Your task to perform on an android device: allow notifications from all sites in the chrome app Image 0: 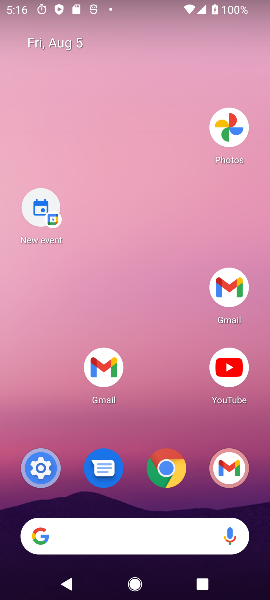
Step 0: drag from (166, 572) to (121, 138)
Your task to perform on an android device: allow notifications from all sites in the chrome app Image 1: 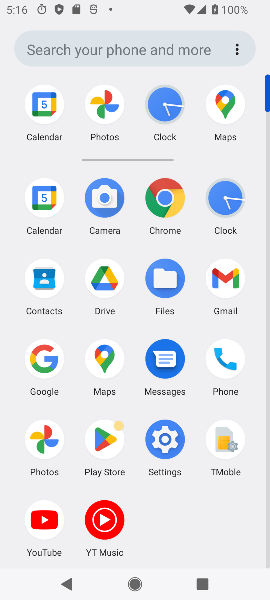
Step 1: drag from (159, 496) to (162, 76)
Your task to perform on an android device: allow notifications from all sites in the chrome app Image 2: 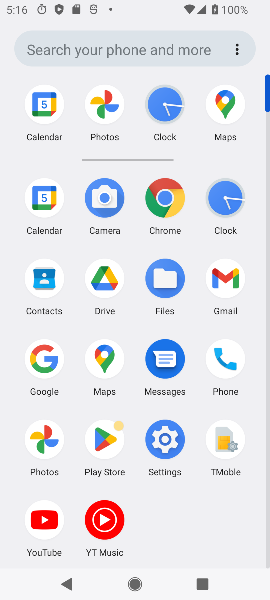
Step 2: click (164, 195)
Your task to perform on an android device: allow notifications from all sites in the chrome app Image 3: 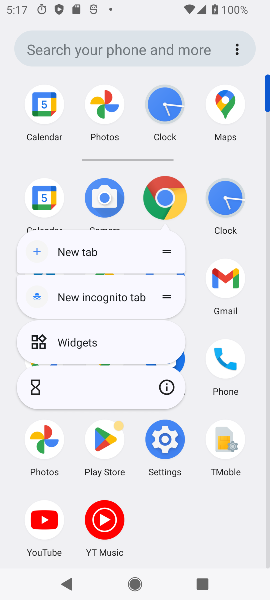
Step 3: click (164, 195)
Your task to perform on an android device: allow notifications from all sites in the chrome app Image 4: 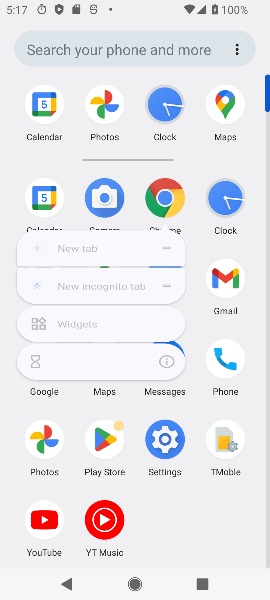
Step 4: click (164, 195)
Your task to perform on an android device: allow notifications from all sites in the chrome app Image 5: 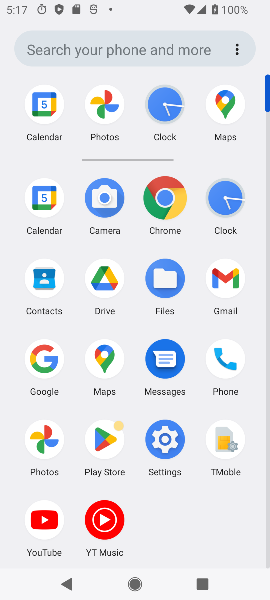
Step 5: click (166, 193)
Your task to perform on an android device: allow notifications from all sites in the chrome app Image 6: 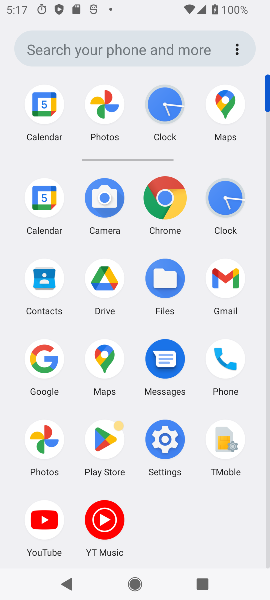
Step 6: click (166, 193)
Your task to perform on an android device: allow notifications from all sites in the chrome app Image 7: 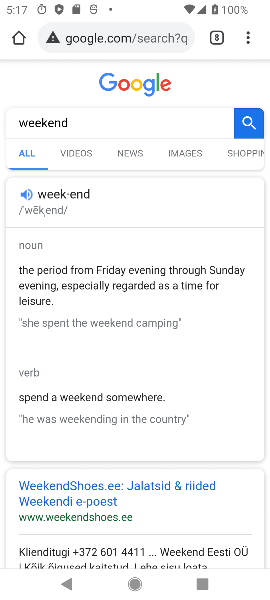
Step 7: press back button
Your task to perform on an android device: allow notifications from all sites in the chrome app Image 8: 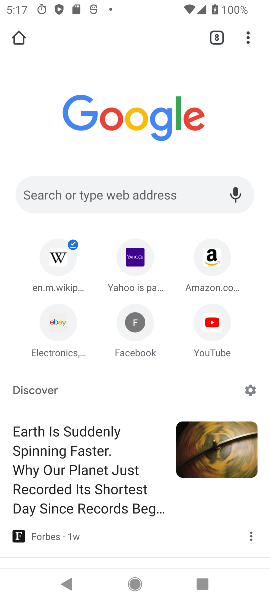
Step 8: click (244, 37)
Your task to perform on an android device: allow notifications from all sites in the chrome app Image 9: 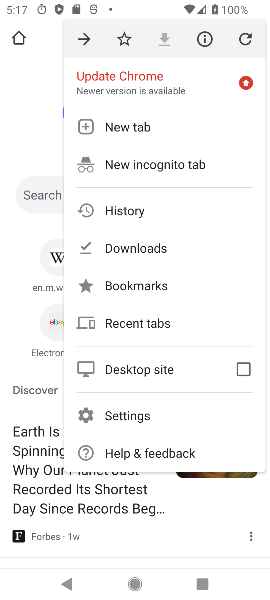
Step 9: click (26, 97)
Your task to perform on an android device: allow notifications from all sites in the chrome app Image 10: 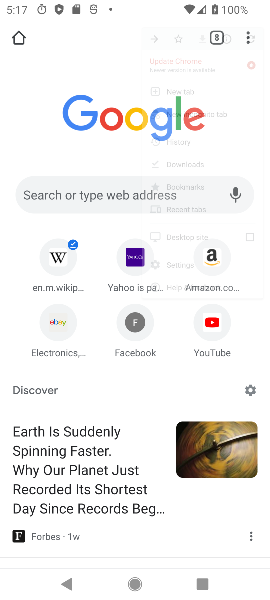
Step 10: click (26, 95)
Your task to perform on an android device: allow notifications from all sites in the chrome app Image 11: 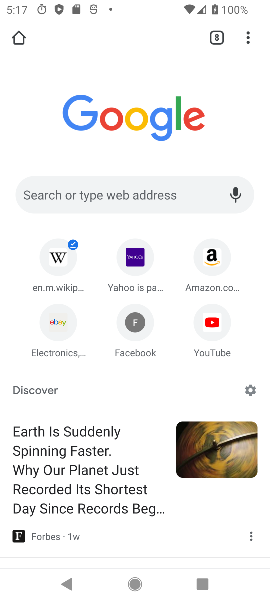
Step 11: drag from (248, 40) to (139, 417)
Your task to perform on an android device: allow notifications from all sites in the chrome app Image 12: 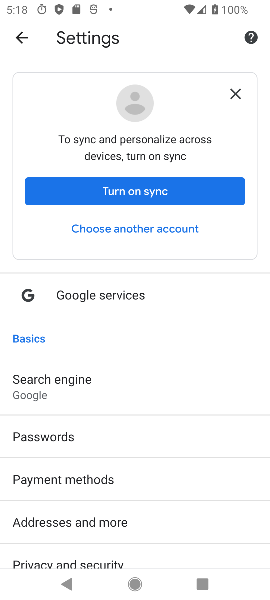
Step 12: drag from (87, 497) to (90, 278)
Your task to perform on an android device: allow notifications from all sites in the chrome app Image 13: 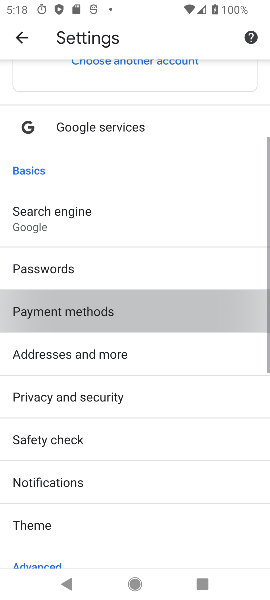
Step 13: drag from (85, 473) to (92, 371)
Your task to perform on an android device: allow notifications from all sites in the chrome app Image 14: 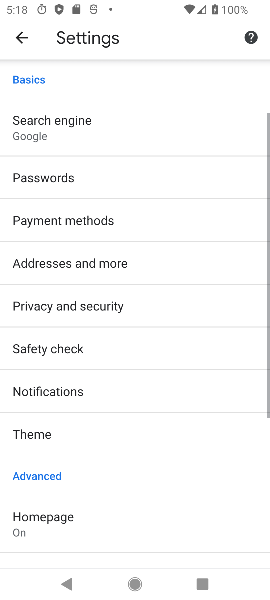
Step 14: drag from (97, 468) to (113, 352)
Your task to perform on an android device: allow notifications from all sites in the chrome app Image 15: 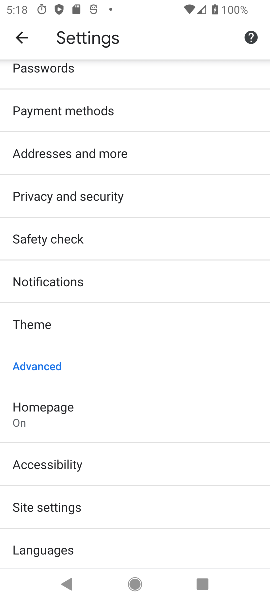
Step 15: drag from (89, 484) to (61, 217)
Your task to perform on an android device: allow notifications from all sites in the chrome app Image 16: 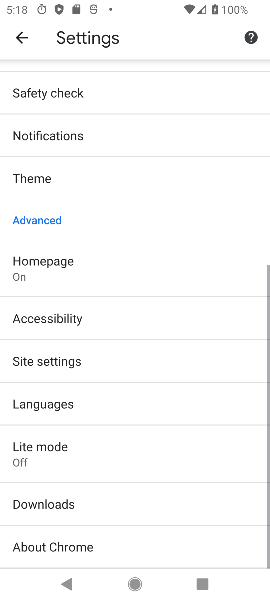
Step 16: drag from (160, 429) to (160, 352)
Your task to perform on an android device: allow notifications from all sites in the chrome app Image 17: 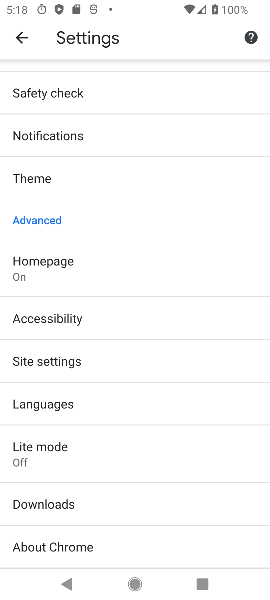
Step 17: click (37, 357)
Your task to perform on an android device: allow notifications from all sites in the chrome app Image 18: 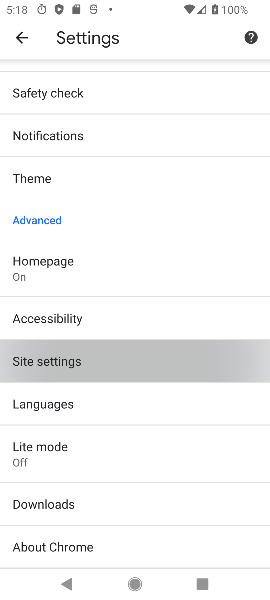
Step 18: click (37, 357)
Your task to perform on an android device: allow notifications from all sites in the chrome app Image 19: 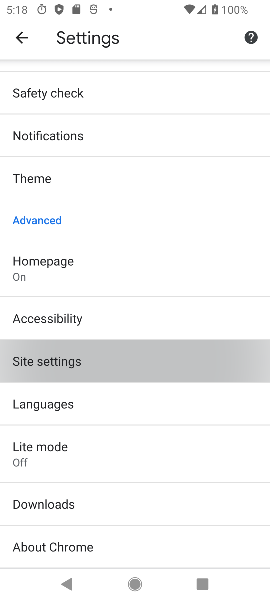
Step 19: click (37, 357)
Your task to perform on an android device: allow notifications from all sites in the chrome app Image 20: 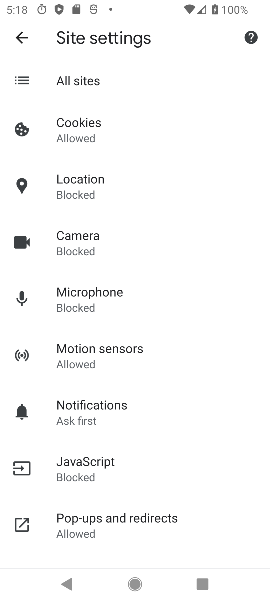
Step 20: click (78, 83)
Your task to perform on an android device: allow notifications from all sites in the chrome app Image 21: 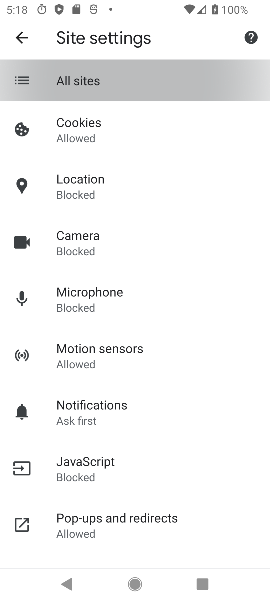
Step 21: click (78, 83)
Your task to perform on an android device: allow notifications from all sites in the chrome app Image 22: 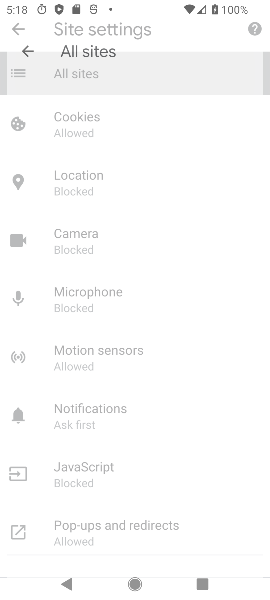
Step 22: click (78, 83)
Your task to perform on an android device: allow notifications from all sites in the chrome app Image 23: 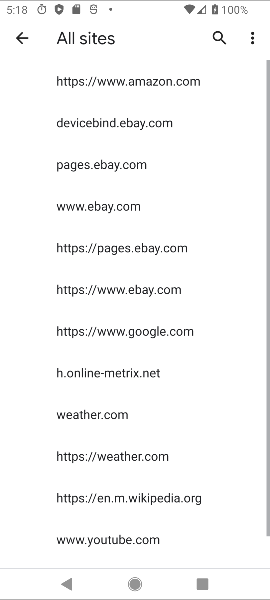
Step 23: click (78, 83)
Your task to perform on an android device: allow notifications from all sites in the chrome app Image 24: 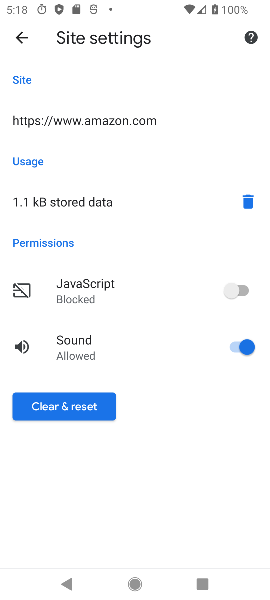
Step 24: click (74, 124)
Your task to perform on an android device: allow notifications from all sites in the chrome app Image 25: 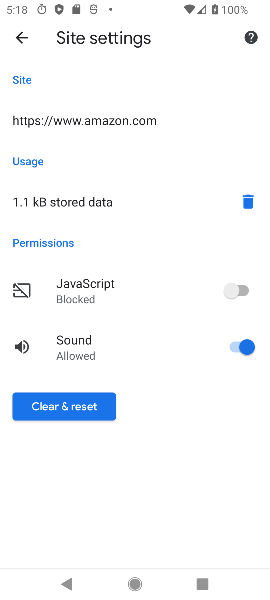
Step 25: click (18, 33)
Your task to perform on an android device: allow notifications from all sites in the chrome app Image 26: 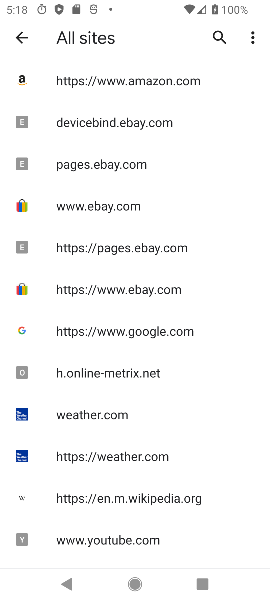
Step 26: click (21, 42)
Your task to perform on an android device: allow notifications from all sites in the chrome app Image 27: 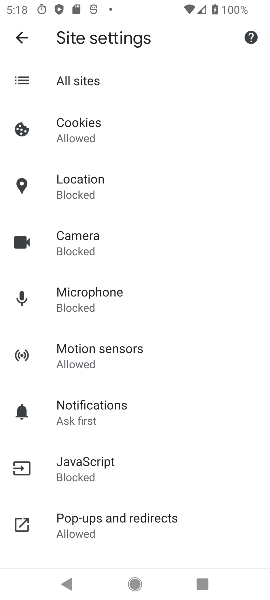
Step 27: click (86, 418)
Your task to perform on an android device: allow notifications from all sites in the chrome app Image 28: 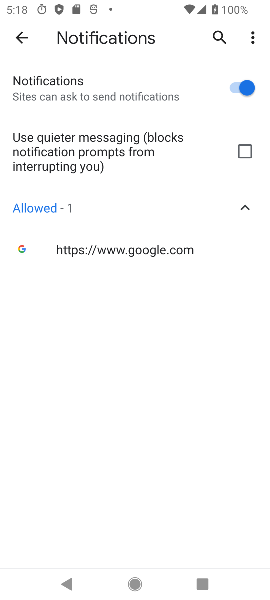
Step 28: task complete